Your task to perform on an android device: Search for pizza restaurants on Maps Image 0: 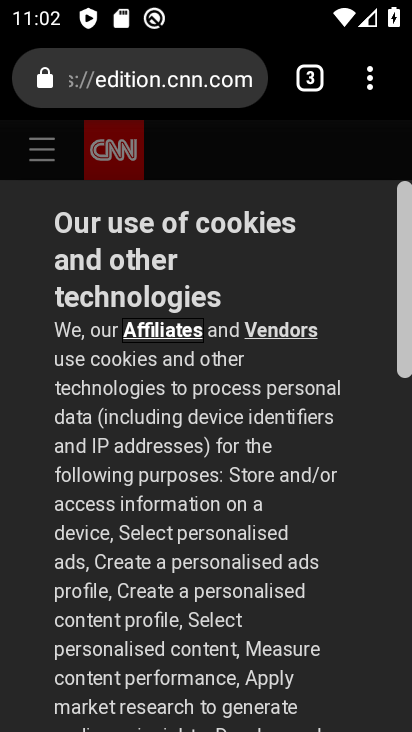
Step 0: press home button
Your task to perform on an android device: Search for pizza restaurants on Maps Image 1: 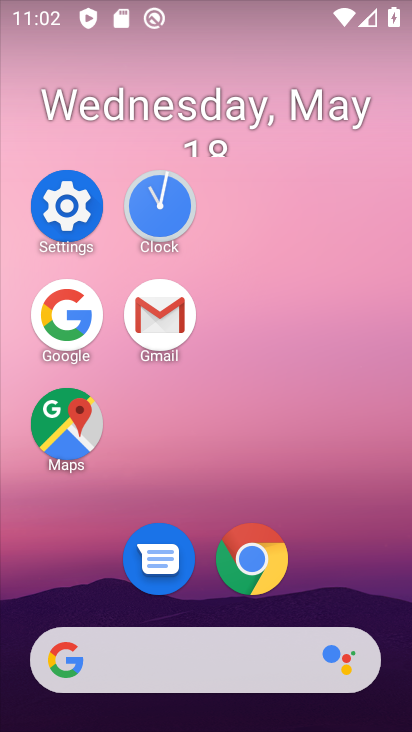
Step 1: click (81, 446)
Your task to perform on an android device: Search for pizza restaurants on Maps Image 2: 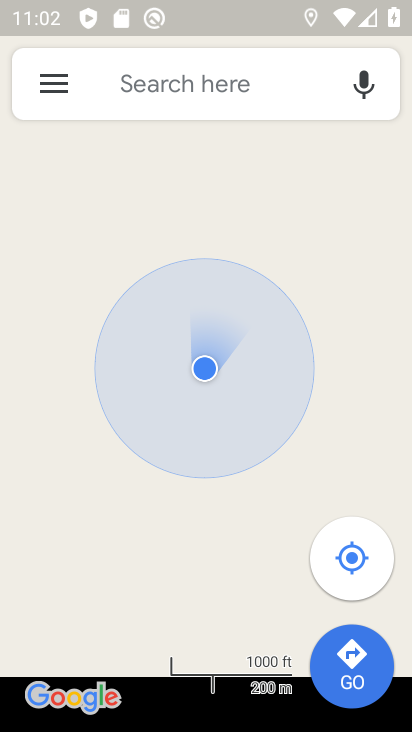
Step 2: click (191, 81)
Your task to perform on an android device: Search for pizza restaurants on Maps Image 3: 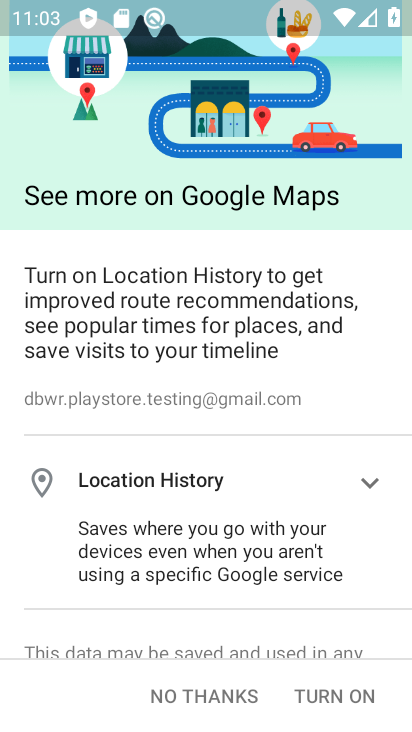
Step 3: click (344, 700)
Your task to perform on an android device: Search for pizza restaurants on Maps Image 4: 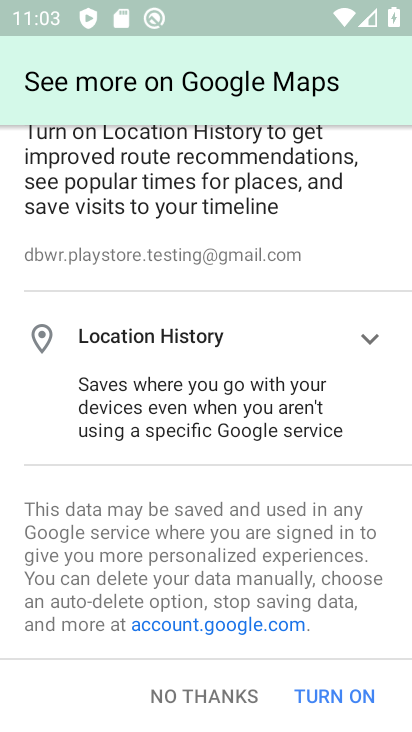
Step 4: click (341, 696)
Your task to perform on an android device: Search for pizza restaurants on Maps Image 5: 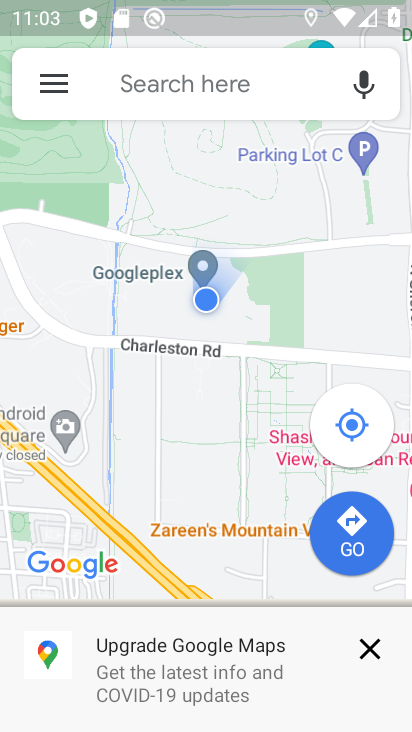
Step 5: click (192, 80)
Your task to perform on an android device: Search for pizza restaurants on Maps Image 6: 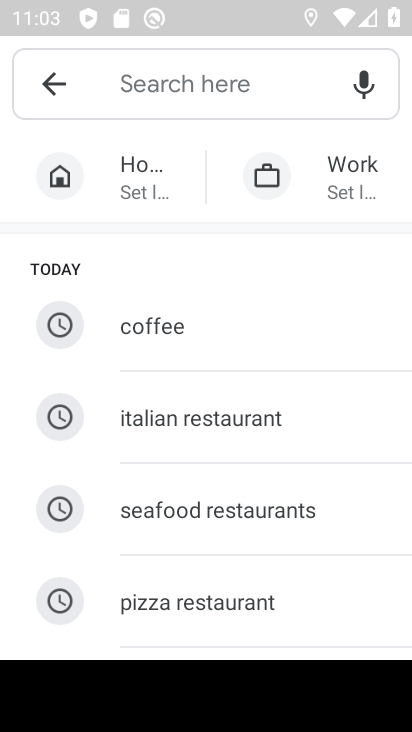
Step 6: click (295, 590)
Your task to perform on an android device: Search for pizza restaurants on Maps Image 7: 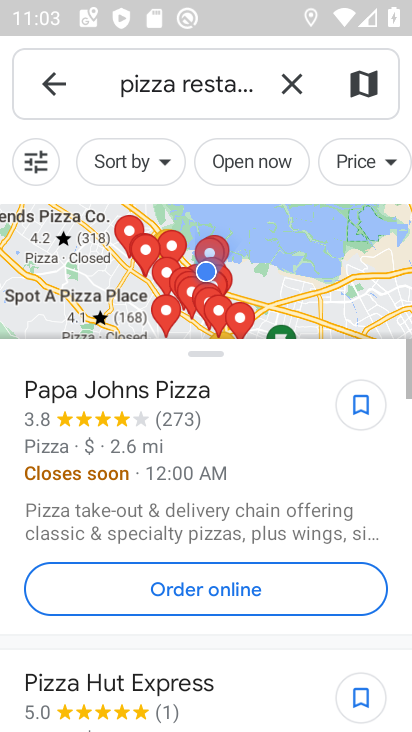
Step 7: task complete